Your task to perform on an android device: Go to Maps Image 0: 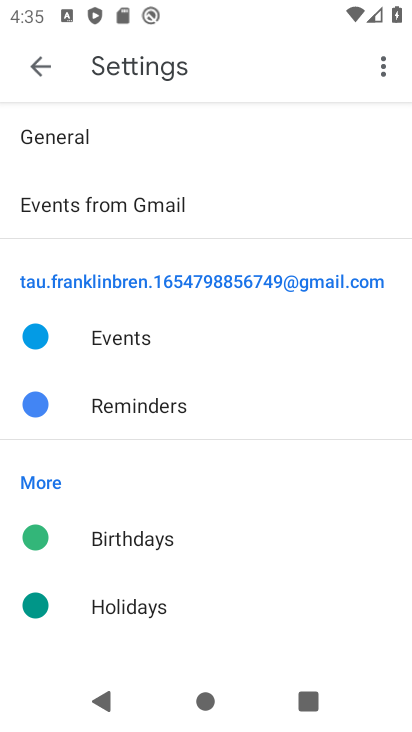
Step 0: press home button
Your task to perform on an android device: Go to Maps Image 1: 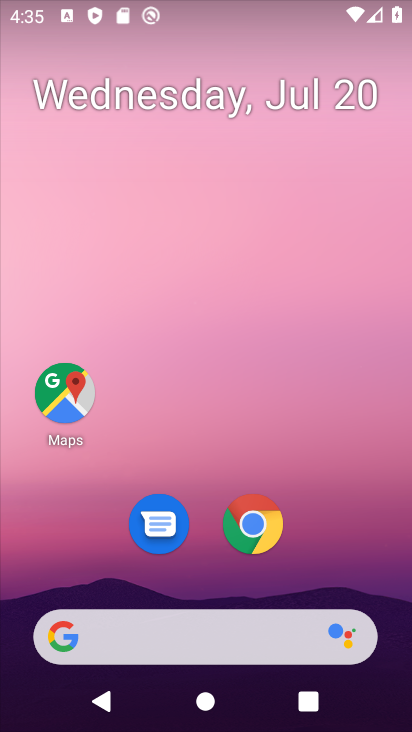
Step 1: click (72, 404)
Your task to perform on an android device: Go to Maps Image 2: 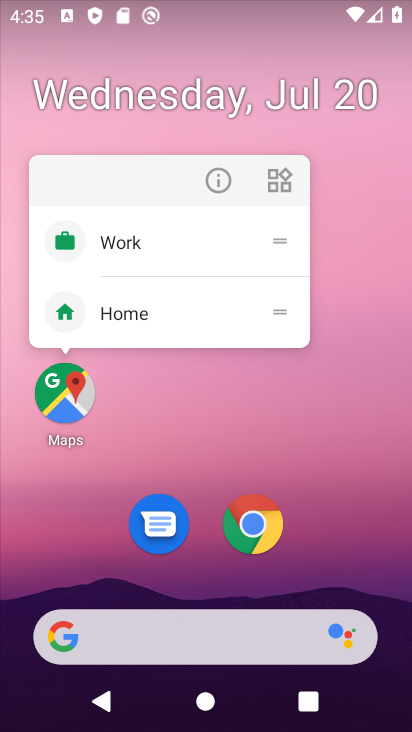
Step 2: click (72, 404)
Your task to perform on an android device: Go to Maps Image 3: 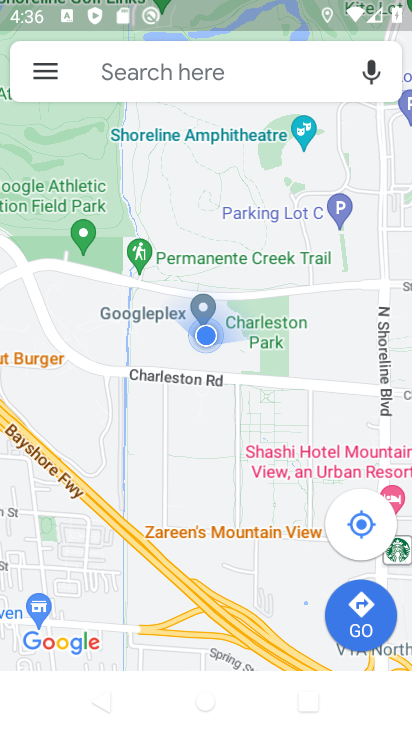
Step 3: task complete